Your task to perform on an android device: visit the assistant section in the google photos Image 0: 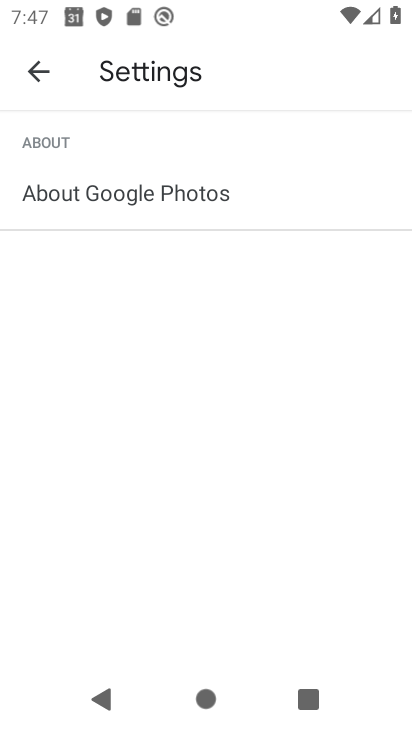
Step 0: press back button
Your task to perform on an android device: visit the assistant section in the google photos Image 1: 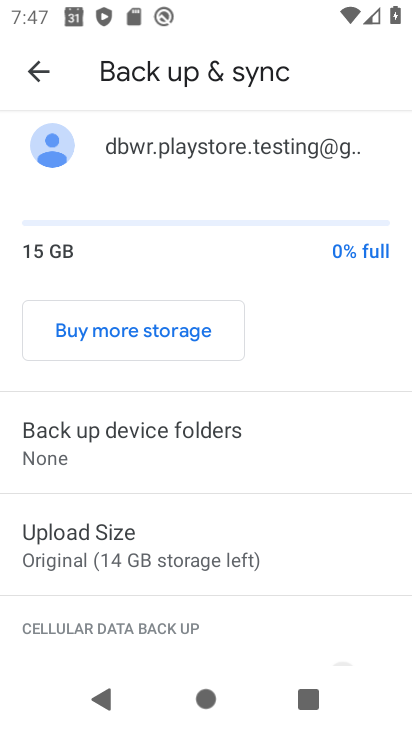
Step 1: press home button
Your task to perform on an android device: visit the assistant section in the google photos Image 2: 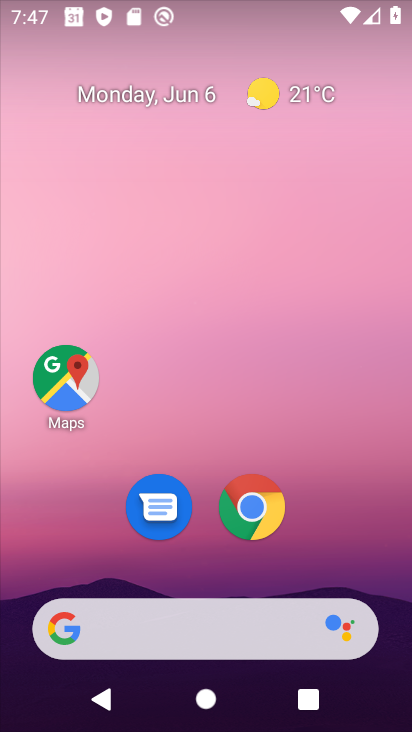
Step 2: drag from (187, 578) to (267, 40)
Your task to perform on an android device: visit the assistant section in the google photos Image 3: 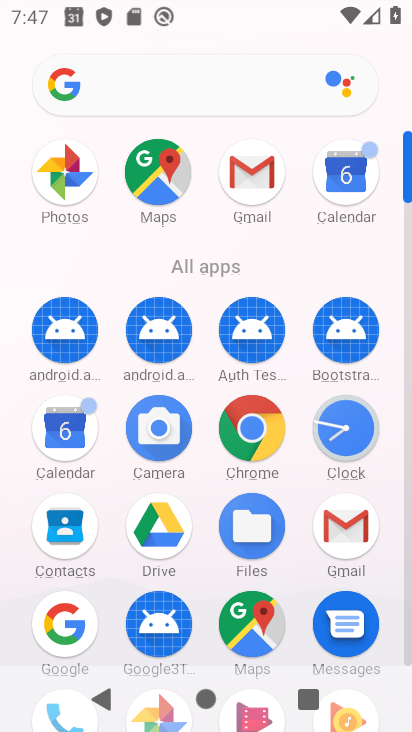
Step 3: drag from (209, 636) to (272, 347)
Your task to perform on an android device: visit the assistant section in the google photos Image 4: 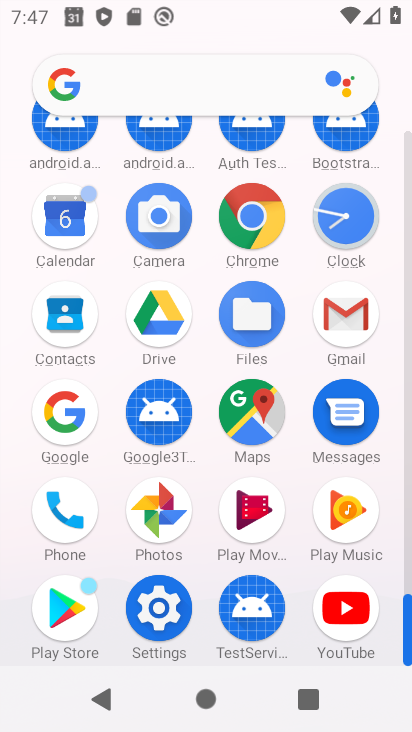
Step 4: click (156, 568)
Your task to perform on an android device: visit the assistant section in the google photos Image 5: 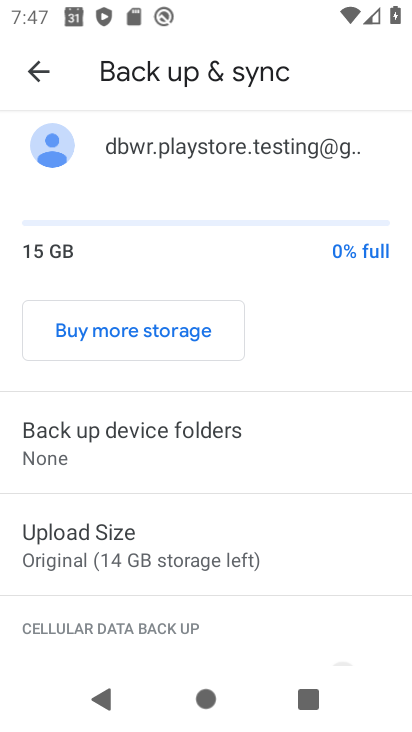
Step 5: drag from (165, 582) to (219, 440)
Your task to perform on an android device: visit the assistant section in the google photos Image 6: 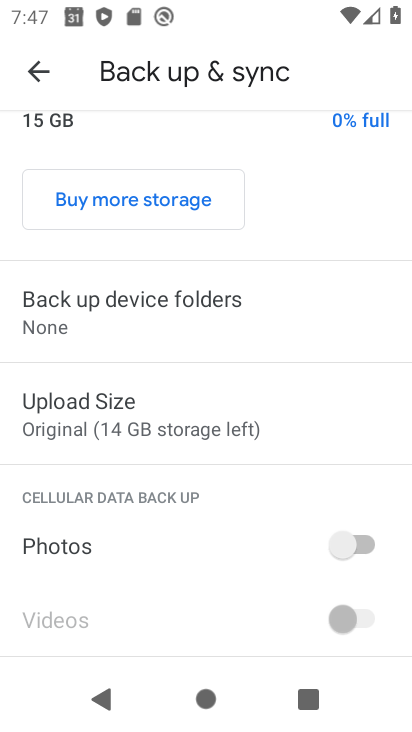
Step 6: click (39, 73)
Your task to perform on an android device: visit the assistant section in the google photos Image 7: 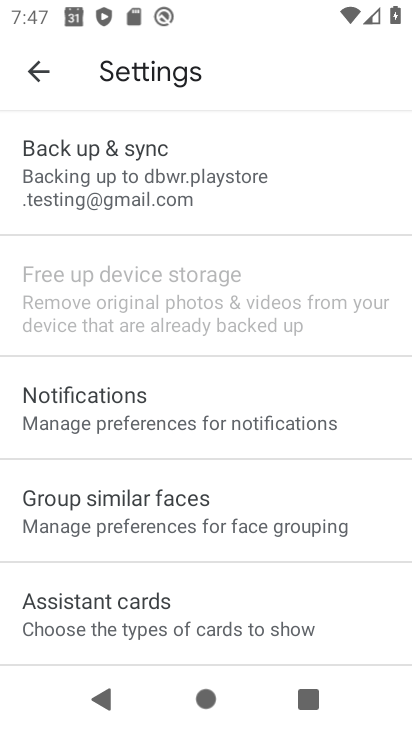
Step 7: click (34, 79)
Your task to perform on an android device: visit the assistant section in the google photos Image 8: 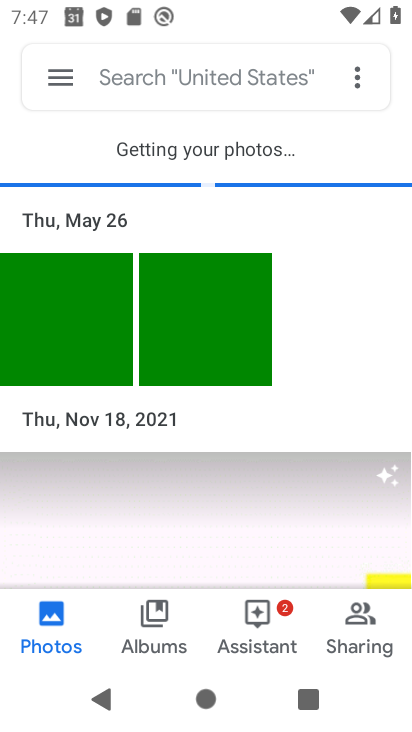
Step 8: click (253, 651)
Your task to perform on an android device: visit the assistant section in the google photos Image 9: 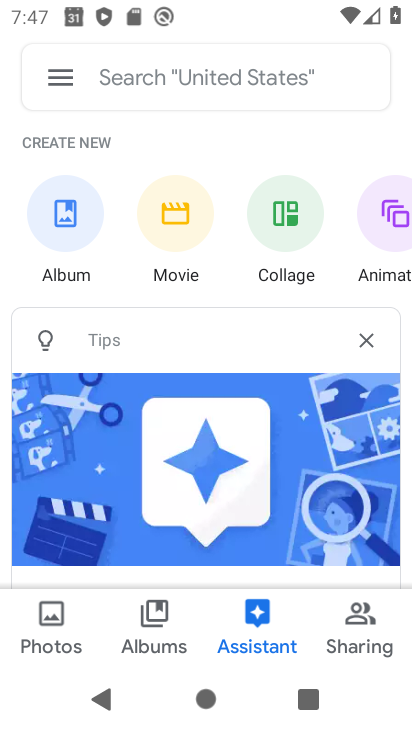
Step 9: task complete